Your task to perform on an android device: turn off airplane mode Image 0: 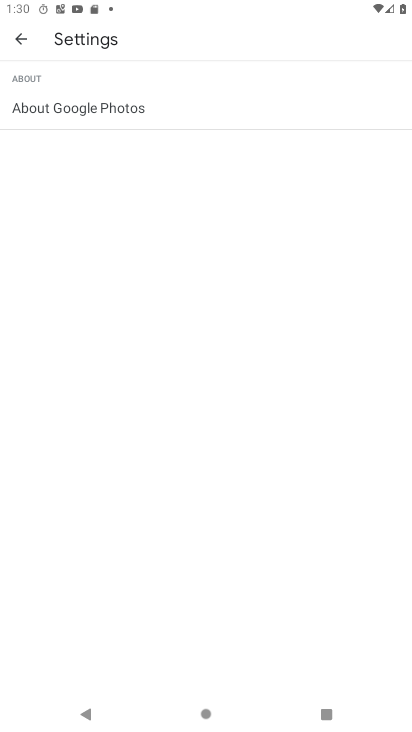
Step 0: press home button
Your task to perform on an android device: turn off airplane mode Image 1: 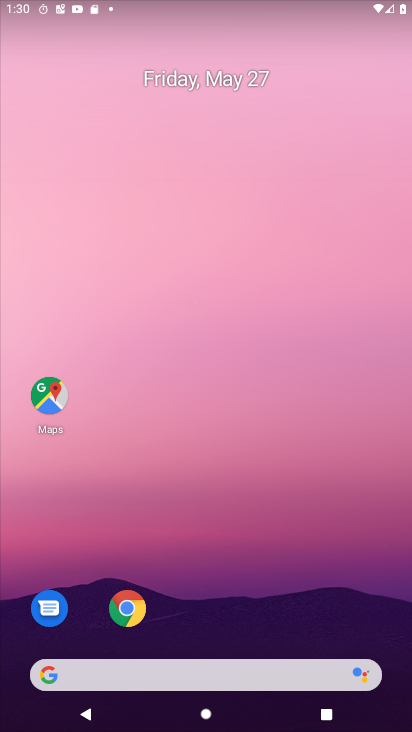
Step 1: drag from (397, 533) to (369, 109)
Your task to perform on an android device: turn off airplane mode Image 2: 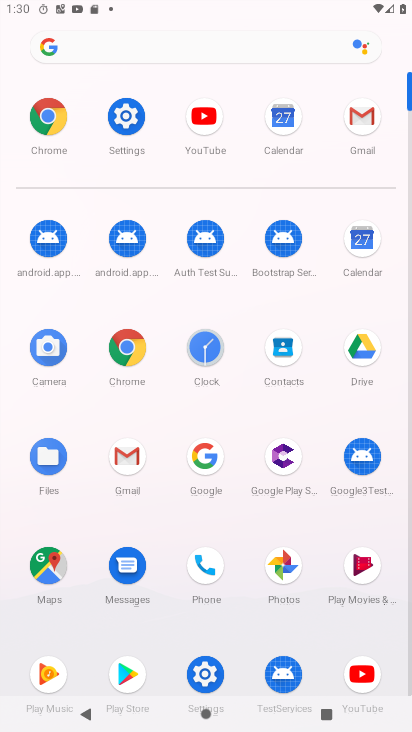
Step 2: click (138, 117)
Your task to perform on an android device: turn off airplane mode Image 3: 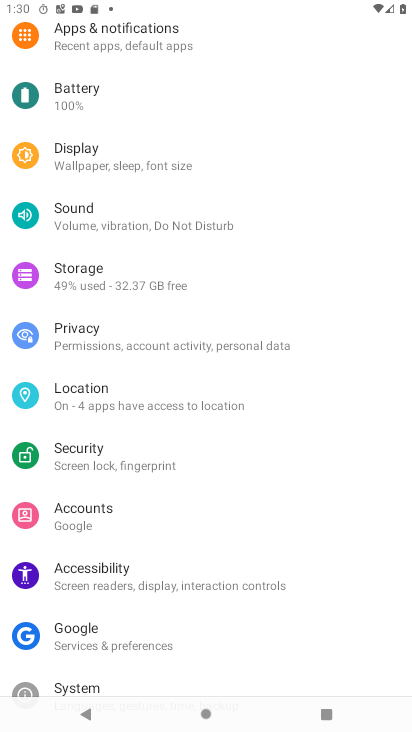
Step 3: click (122, 106)
Your task to perform on an android device: turn off airplane mode Image 4: 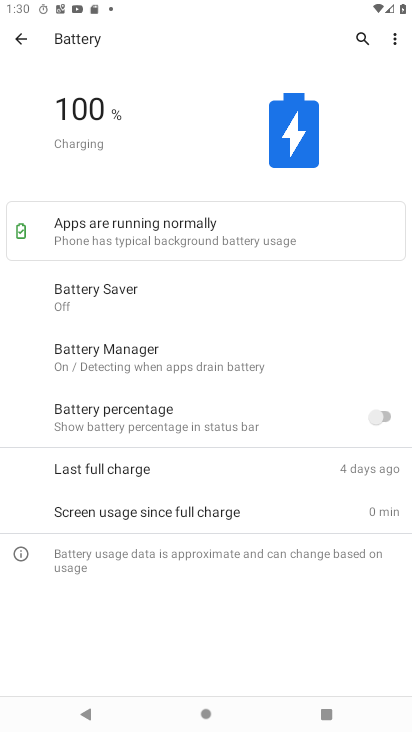
Step 4: click (14, 39)
Your task to perform on an android device: turn off airplane mode Image 5: 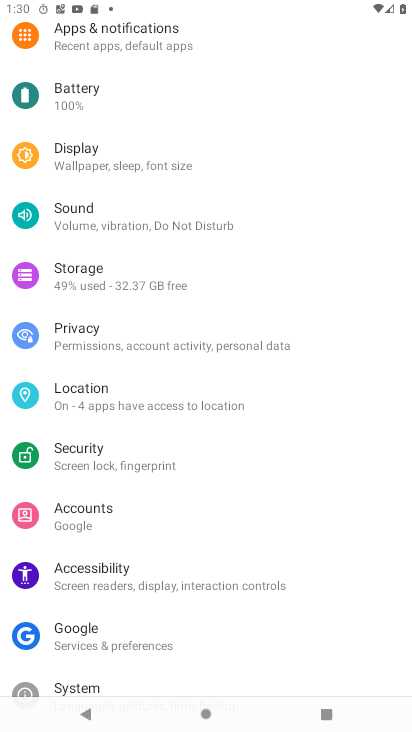
Step 5: drag from (309, 109) to (327, 553)
Your task to perform on an android device: turn off airplane mode Image 6: 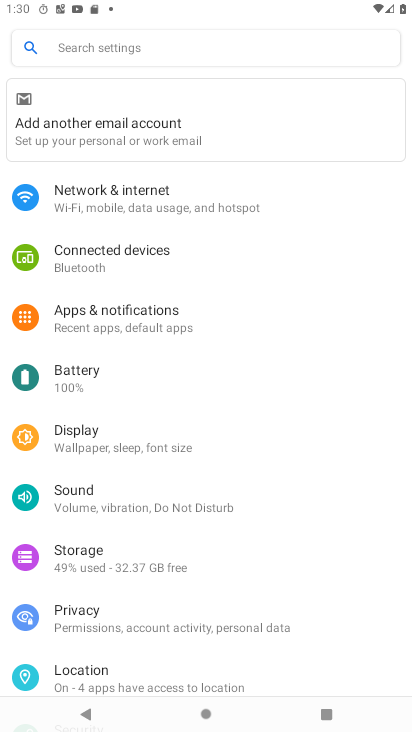
Step 6: click (106, 196)
Your task to perform on an android device: turn off airplane mode Image 7: 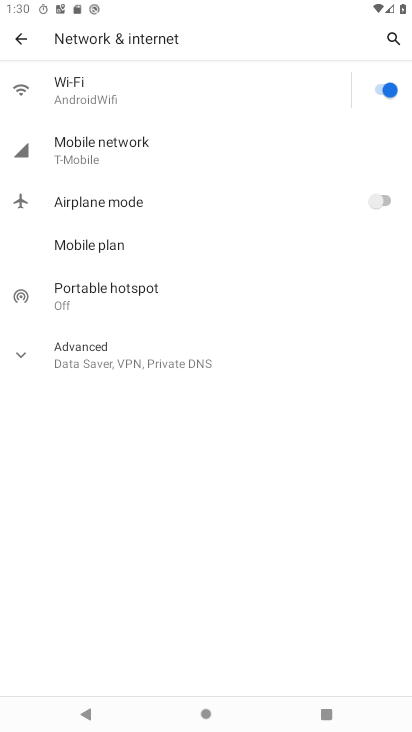
Step 7: task complete